Your task to perform on an android device: Open display settings Image 0: 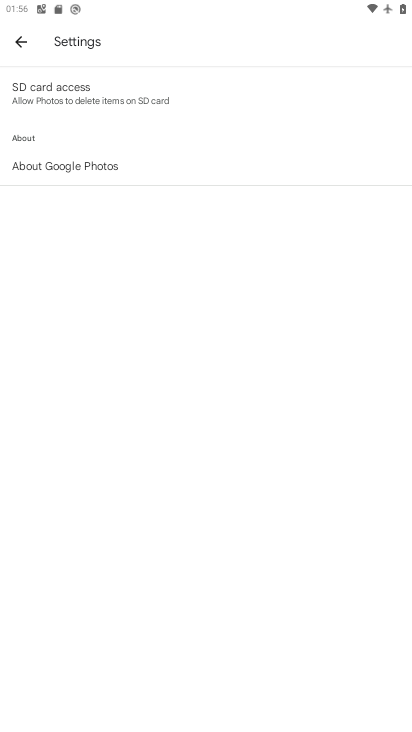
Step 0: drag from (256, 640) to (232, 465)
Your task to perform on an android device: Open display settings Image 1: 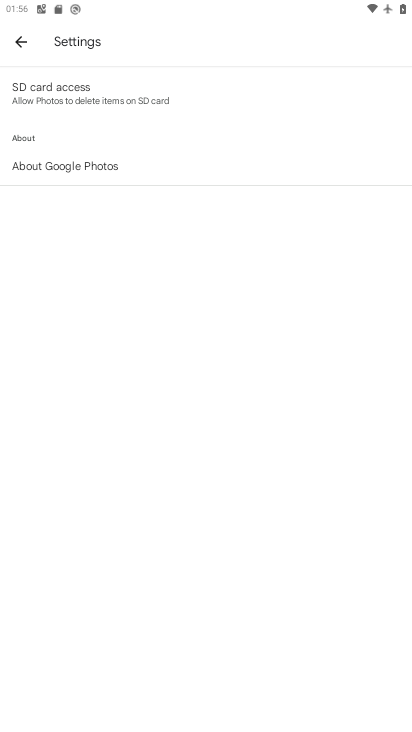
Step 1: press home button
Your task to perform on an android device: Open display settings Image 2: 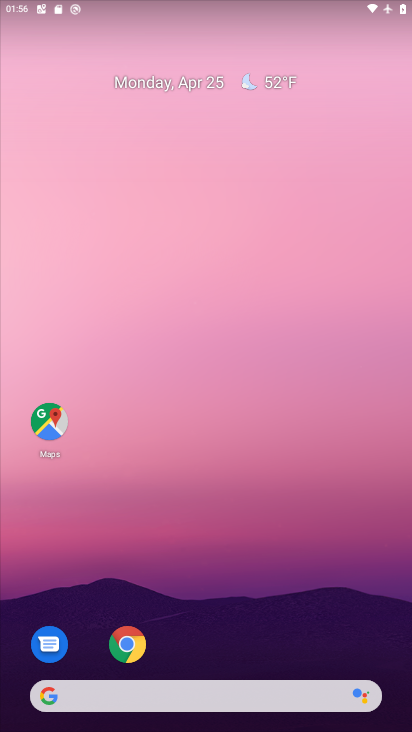
Step 2: drag from (267, 630) to (235, 197)
Your task to perform on an android device: Open display settings Image 3: 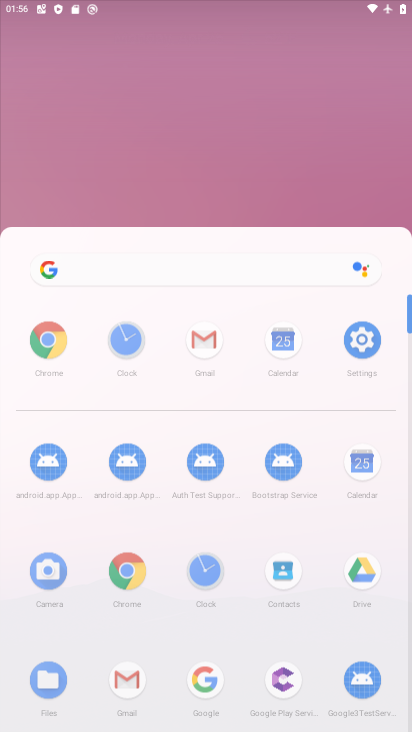
Step 3: click (235, 4)
Your task to perform on an android device: Open display settings Image 4: 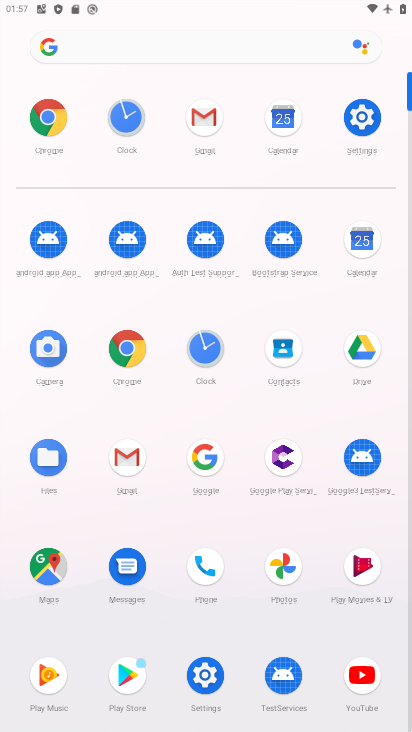
Step 4: click (348, 129)
Your task to perform on an android device: Open display settings Image 5: 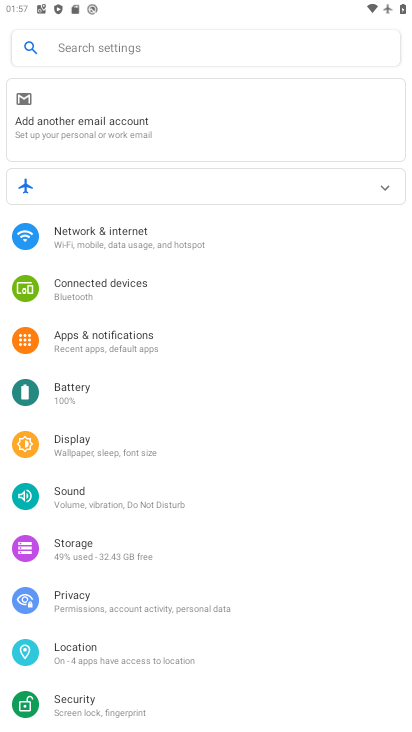
Step 5: click (156, 454)
Your task to perform on an android device: Open display settings Image 6: 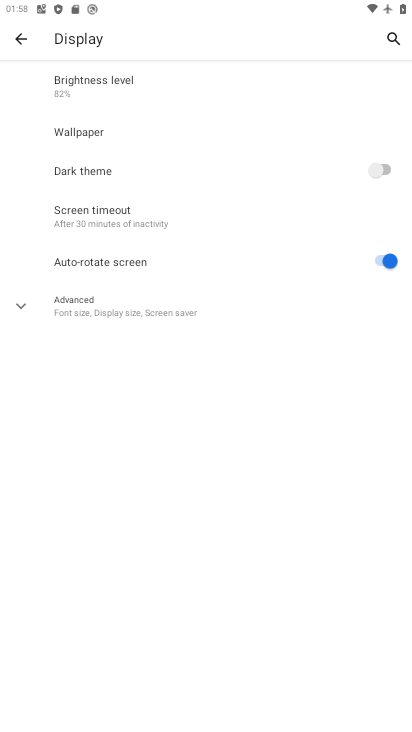
Step 6: task complete